Your task to perform on an android device: find photos in the google photos app Image 0: 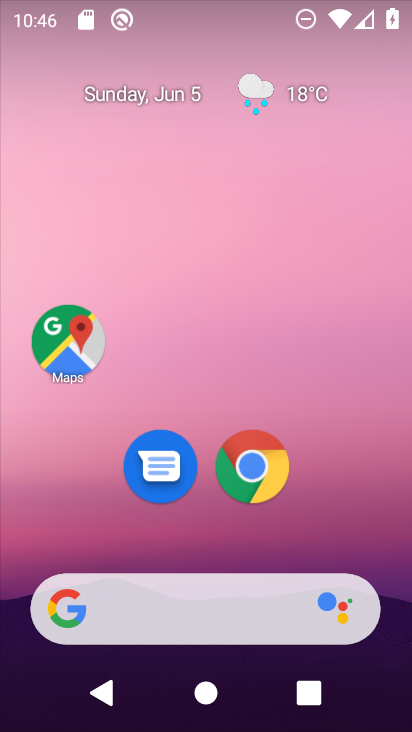
Step 0: drag from (376, 559) to (225, 46)
Your task to perform on an android device: find photos in the google photos app Image 1: 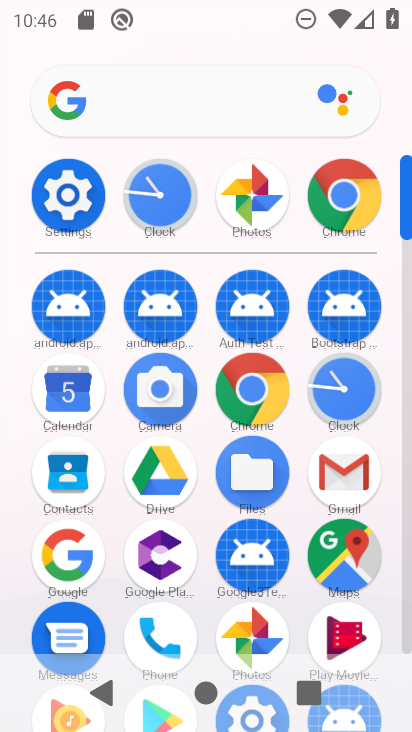
Step 1: drag from (7, 585) to (11, 246)
Your task to perform on an android device: find photos in the google photos app Image 2: 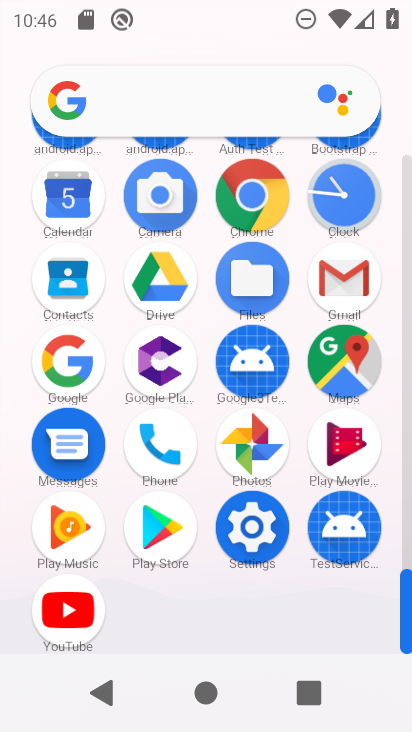
Step 2: click (256, 443)
Your task to perform on an android device: find photos in the google photos app Image 3: 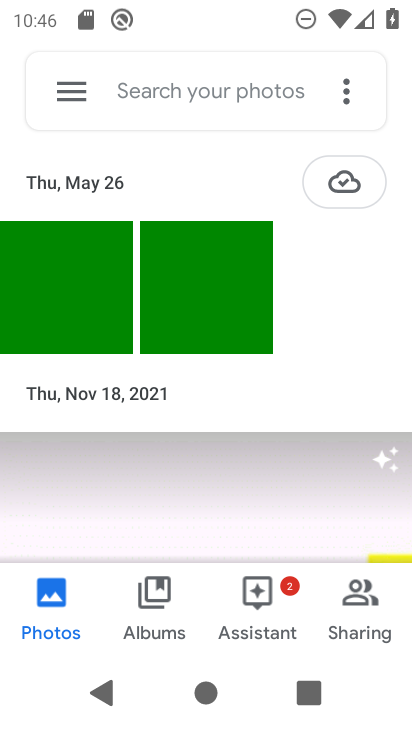
Step 3: task complete